Your task to perform on an android device: Go to sound settings Image 0: 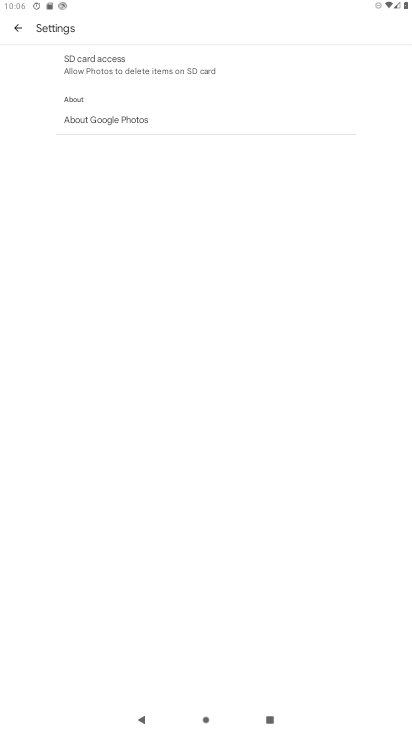
Step 0: press home button
Your task to perform on an android device: Go to sound settings Image 1: 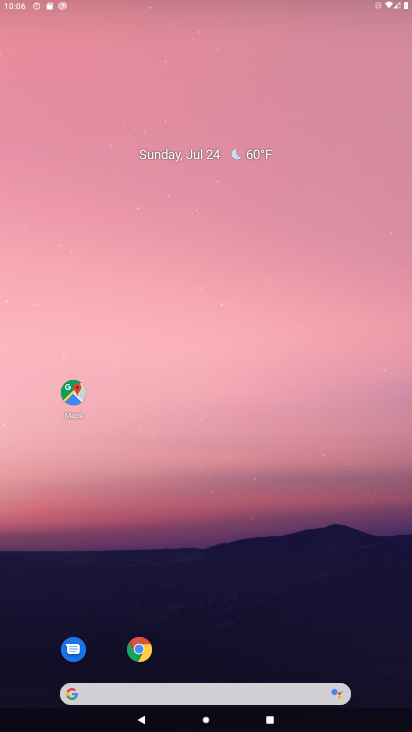
Step 1: drag from (287, 584) to (168, 40)
Your task to perform on an android device: Go to sound settings Image 2: 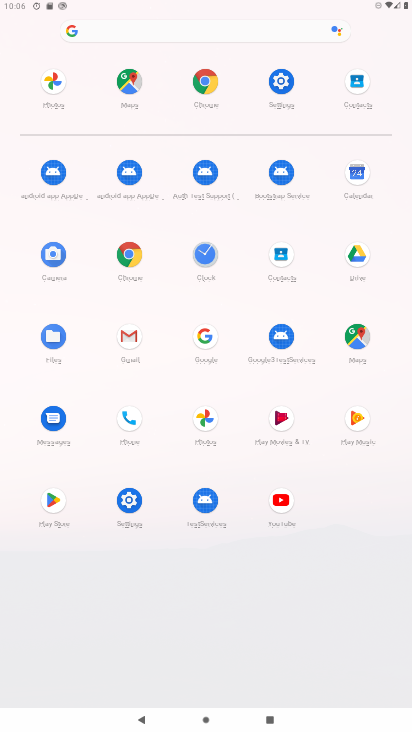
Step 2: click (294, 85)
Your task to perform on an android device: Go to sound settings Image 3: 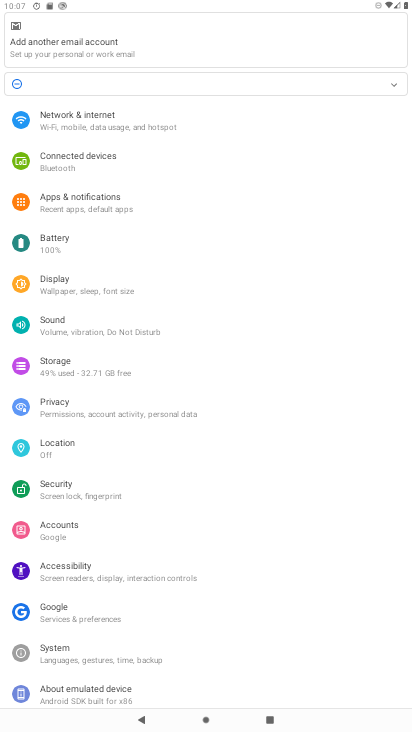
Step 3: click (111, 330)
Your task to perform on an android device: Go to sound settings Image 4: 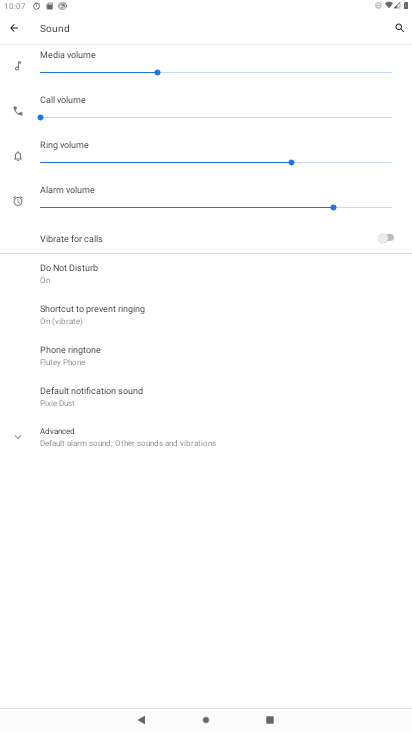
Step 4: task complete